Your task to perform on an android device: Open ESPN.com Image 0: 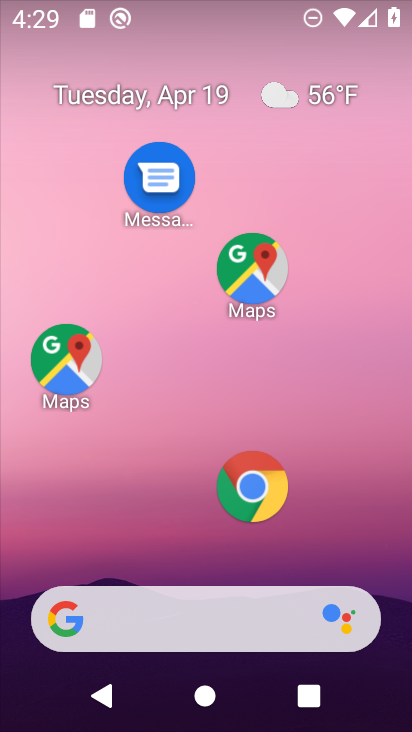
Step 0: click (282, 509)
Your task to perform on an android device: Open ESPN.com Image 1: 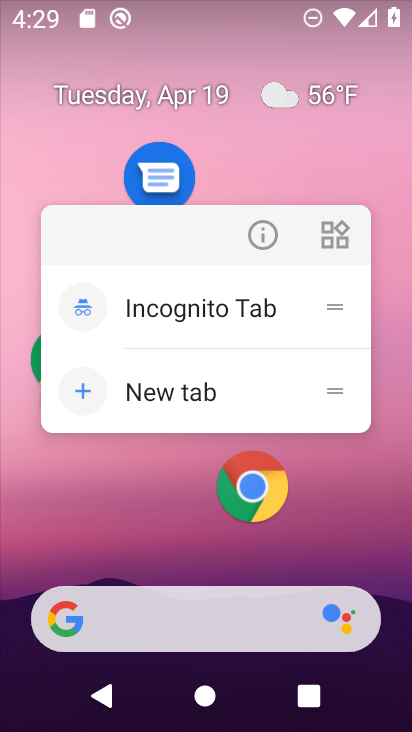
Step 1: click (190, 390)
Your task to perform on an android device: Open ESPN.com Image 2: 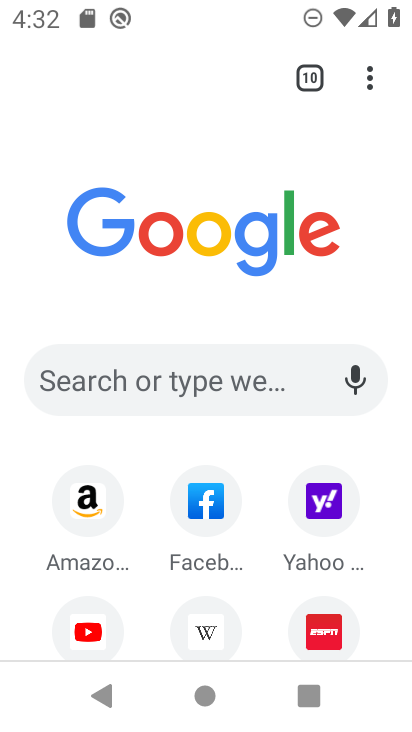
Step 2: click (150, 373)
Your task to perform on an android device: Open ESPN.com Image 3: 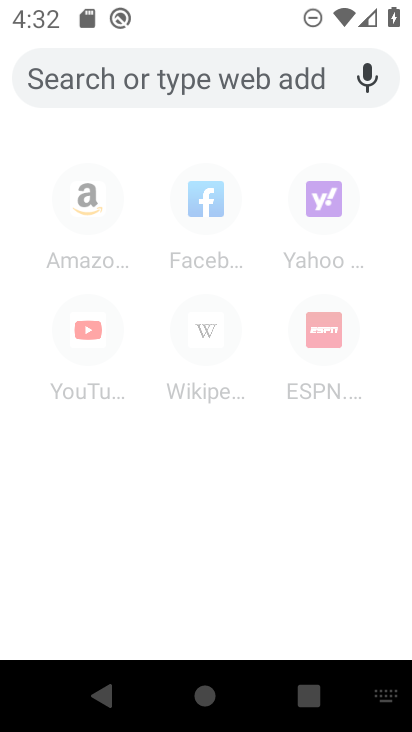
Step 3: type "ESPN.com"
Your task to perform on an android device: Open ESPN.com Image 4: 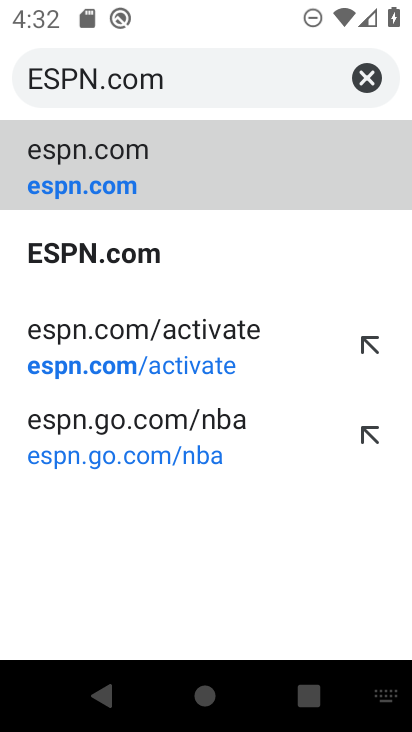
Step 4: click (171, 184)
Your task to perform on an android device: Open ESPN.com Image 5: 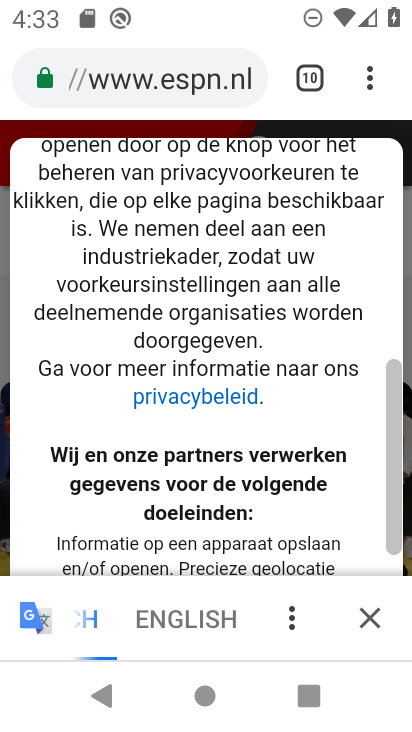
Step 5: task complete